Your task to perform on an android device: Open calendar and show me the first week of next month Image 0: 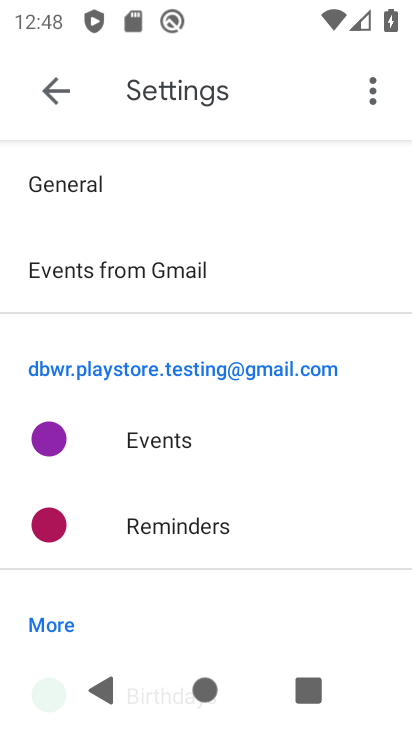
Step 0: press home button
Your task to perform on an android device: Open calendar and show me the first week of next month Image 1: 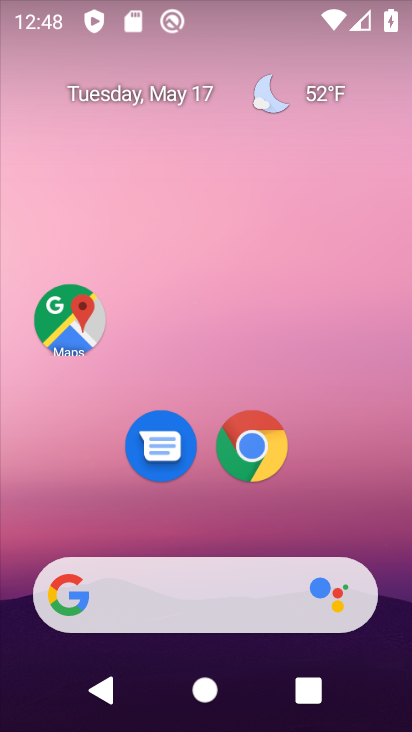
Step 1: drag from (356, 472) to (325, 171)
Your task to perform on an android device: Open calendar and show me the first week of next month Image 2: 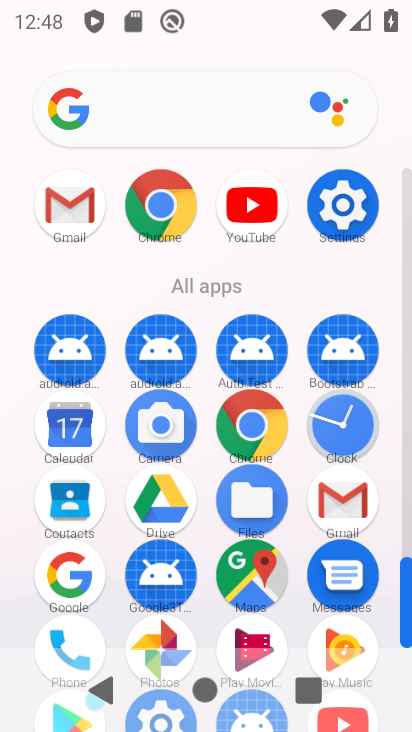
Step 2: click (75, 439)
Your task to perform on an android device: Open calendar and show me the first week of next month Image 3: 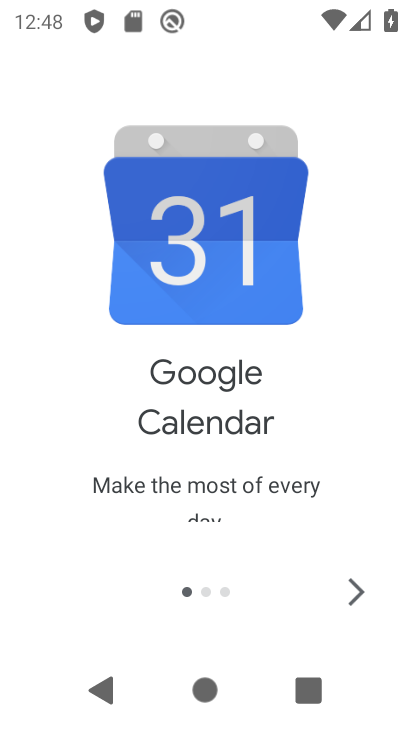
Step 3: click (349, 587)
Your task to perform on an android device: Open calendar and show me the first week of next month Image 4: 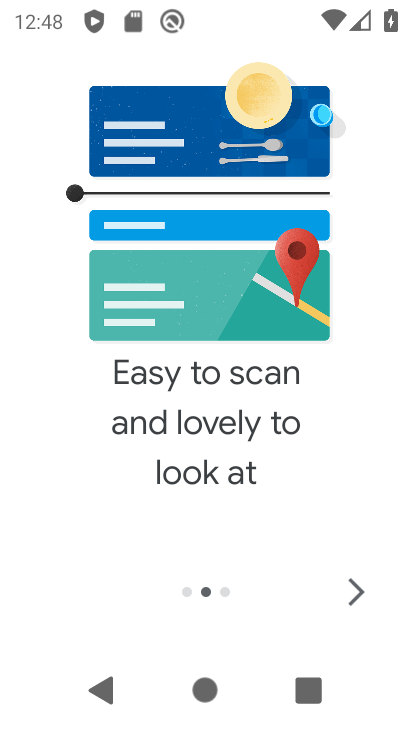
Step 4: click (349, 587)
Your task to perform on an android device: Open calendar and show me the first week of next month Image 5: 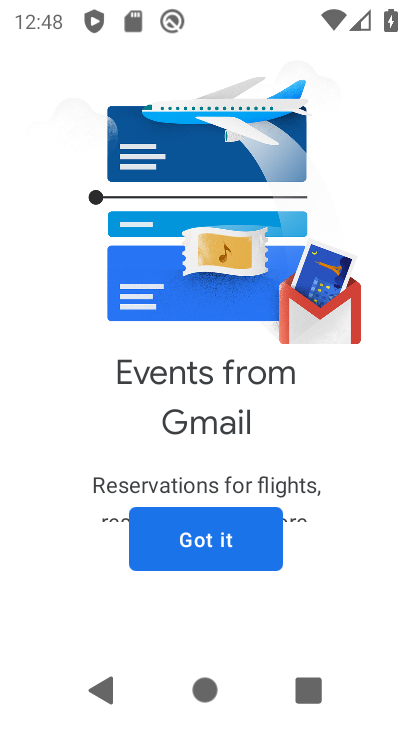
Step 5: click (191, 528)
Your task to perform on an android device: Open calendar and show me the first week of next month Image 6: 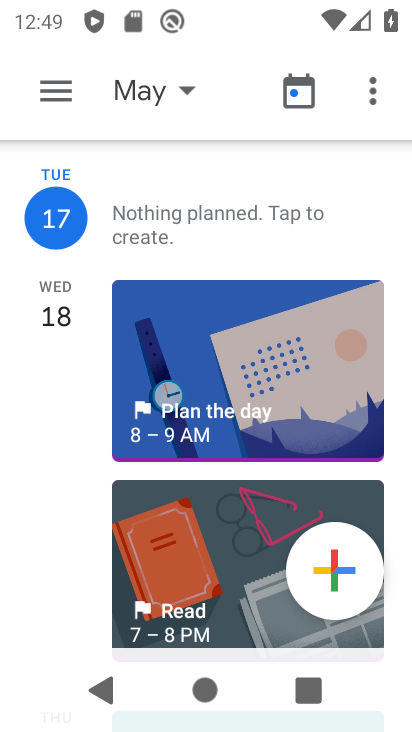
Step 6: click (64, 89)
Your task to perform on an android device: Open calendar and show me the first week of next month Image 7: 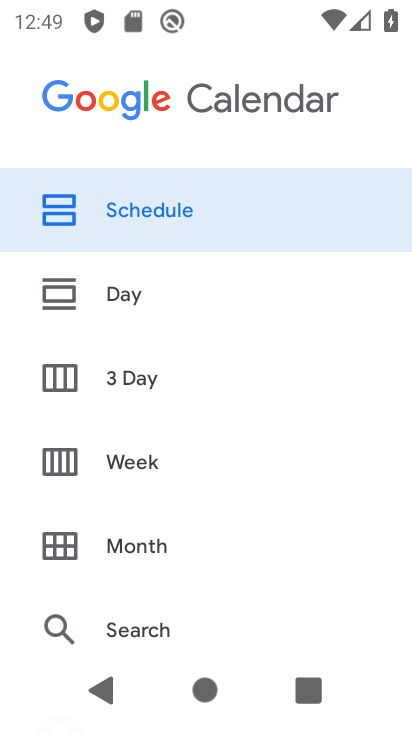
Step 7: click (162, 458)
Your task to perform on an android device: Open calendar and show me the first week of next month Image 8: 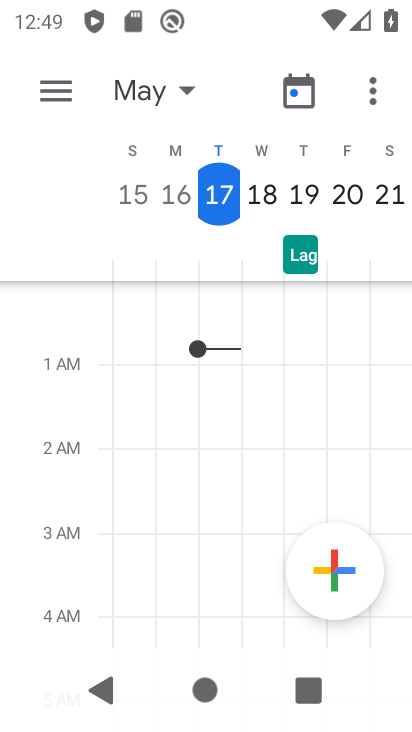
Step 8: click (173, 84)
Your task to perform on an android device: Open calendar and show me the first week of next month Image 9: 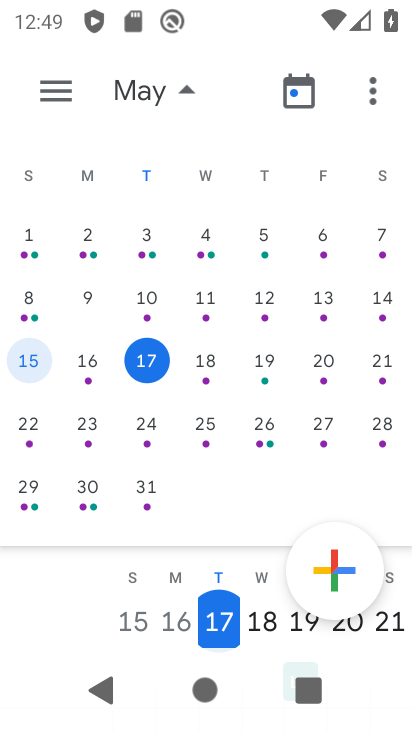
Step 9: drag from (332, 407) to (8, 371)
Your task to perform on an android device: Open calendar and show me the first week of next month Image 10: 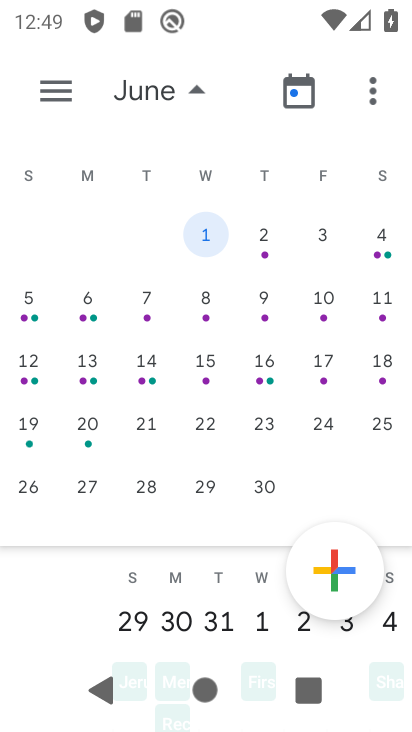
Step 10: click (88, 295)
Your task to perform on an android device: Open calendar and show me the first week of next month Image 11: 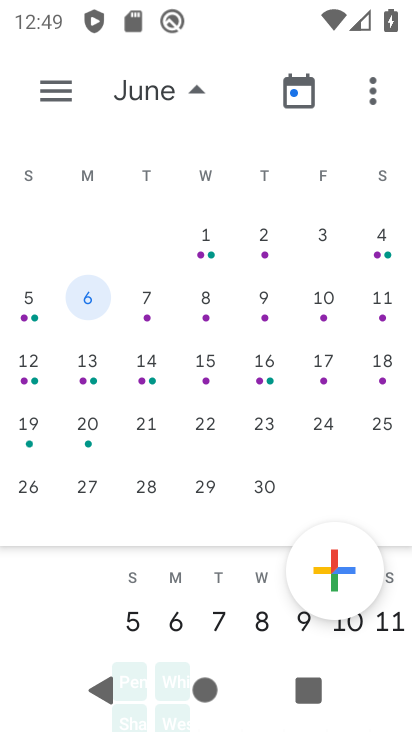
Step 11: task complete